Your task to perform on an android device: toggle airplane mode Image 0: 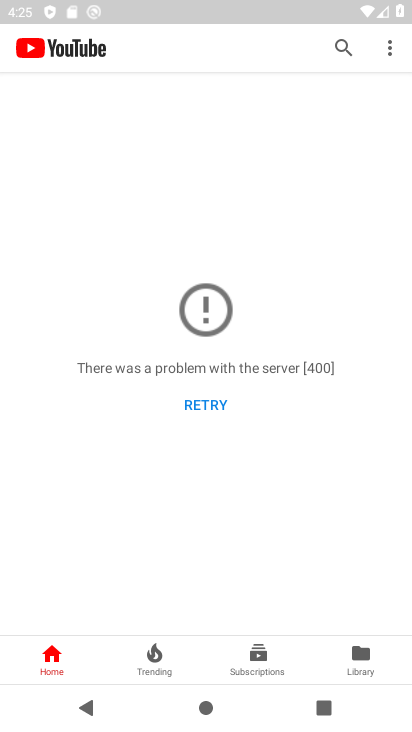
Step 0: click (202, 566)
Your task to perform on an android device: toggle airplane mode Image 1: 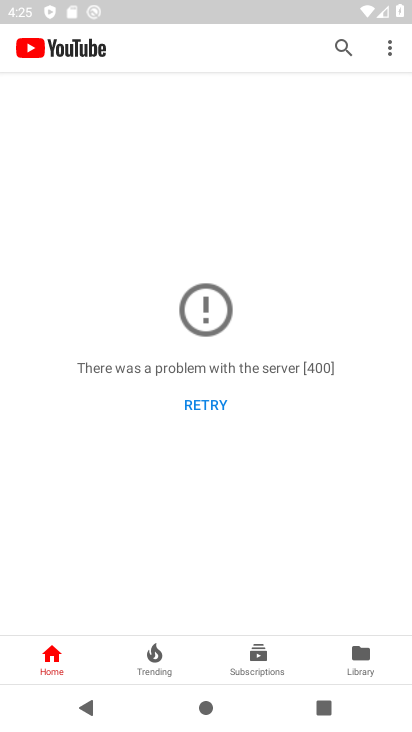
Step 1: press home button
Your task to perform on an android device: toggle airplane mode Image 2: 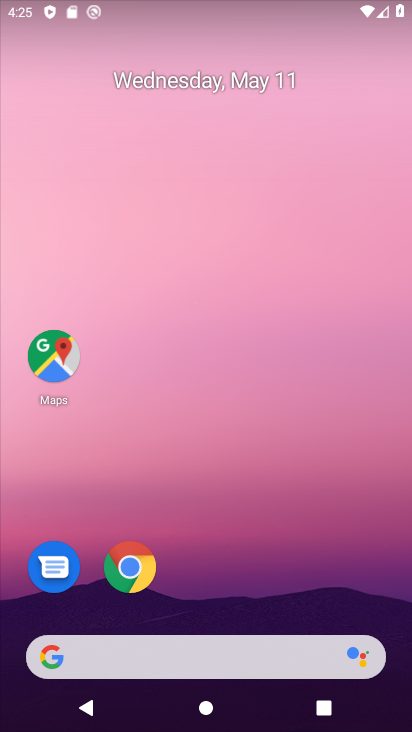
Step 2: drag from (216, 451) to (216, 260)
Your task to perform on an android device: toggle airplane mode Image 3: 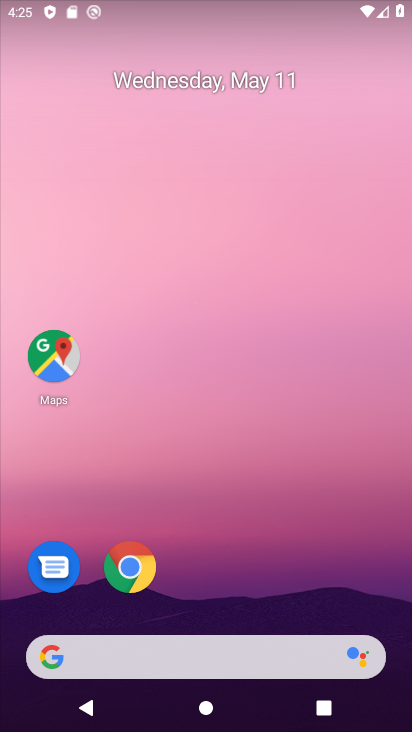
Step 3: drag from (244, 624) to (273, 179)
Your task to perform on an android device: toggle airplane mode Image 4: 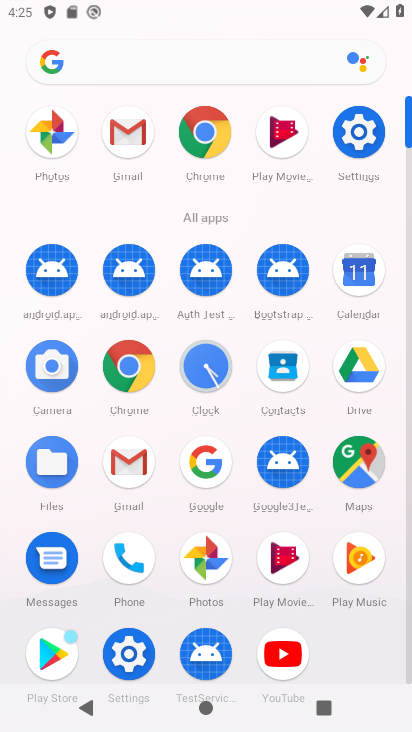
Step 4: click (338, 137)
Your task to perform on an android device: toggle airplane mode Image 5: 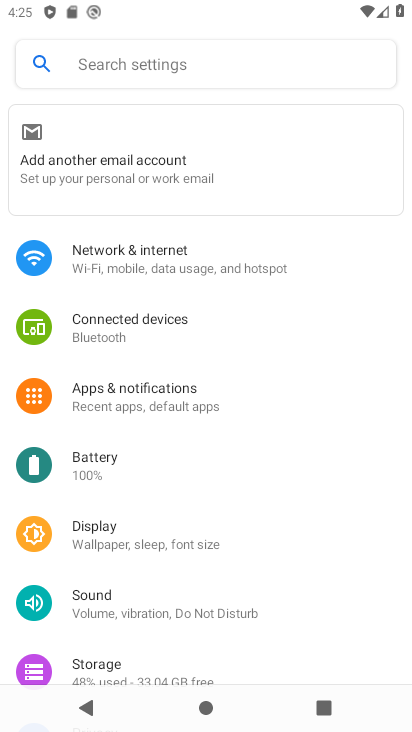
Step 5: click (158, 268)
Your task to perform on an android device: toggle airplane mode Image 6: 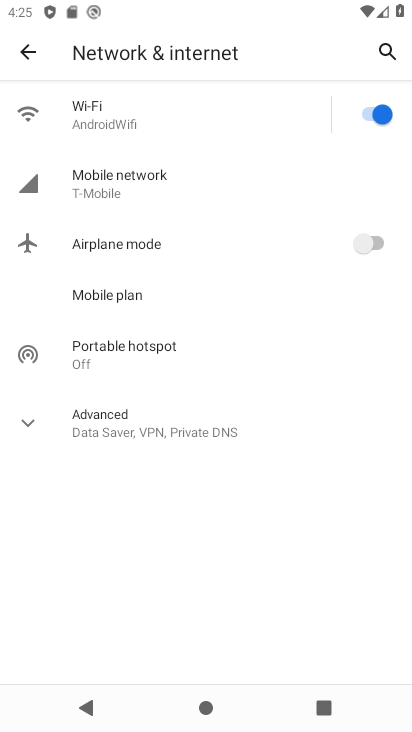
Step 6: click (380, 245)
Your task to perform on an android device: toggle airplane mode Image 7: 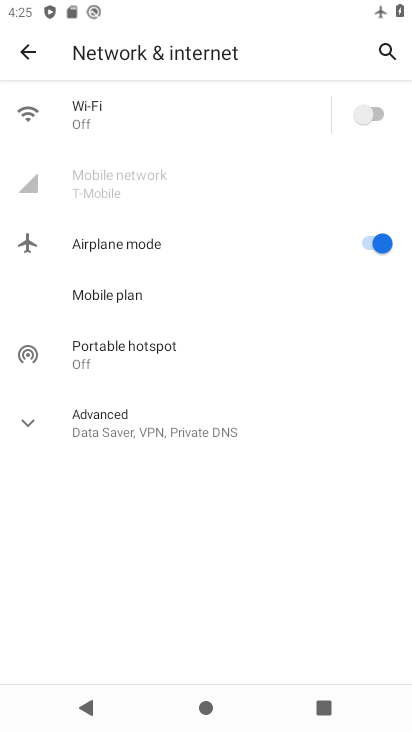
Step 7: task complete